Your task to perform on an android device: Open Chrome and go to the settings page Image 0: 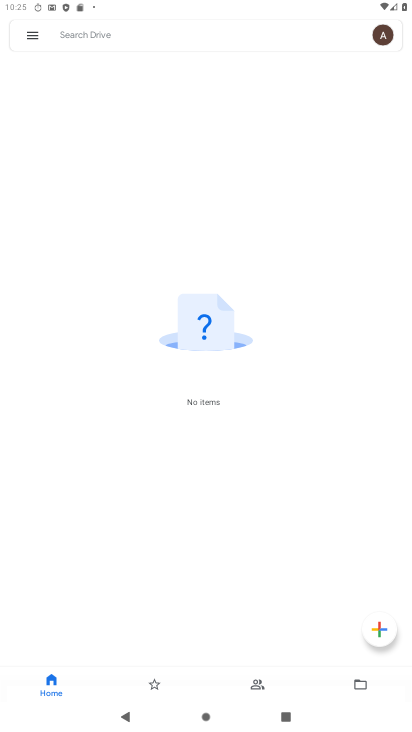
Step 0: press home button
Your task to perform on an android device: Open Chrome and go to the settings page Image 1: 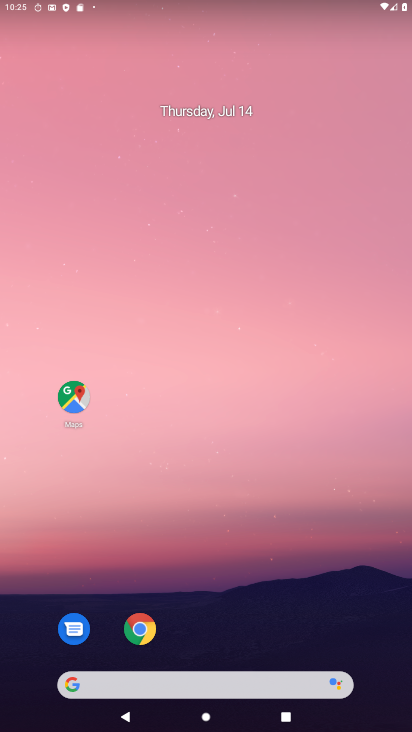
Step 1: click (135, 626)
Your task to perform on an android device: Open Chrome and go to the settings page Image 2: 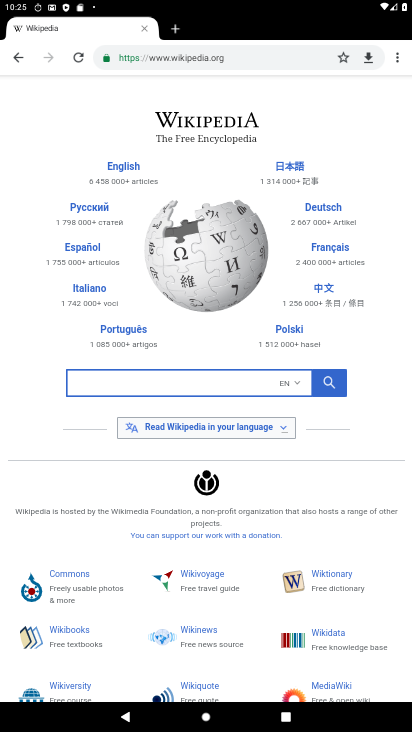
Step 2: click (396, 64)
Your task to perform on an android device: Open Chrome and go to the settings page Image 3: 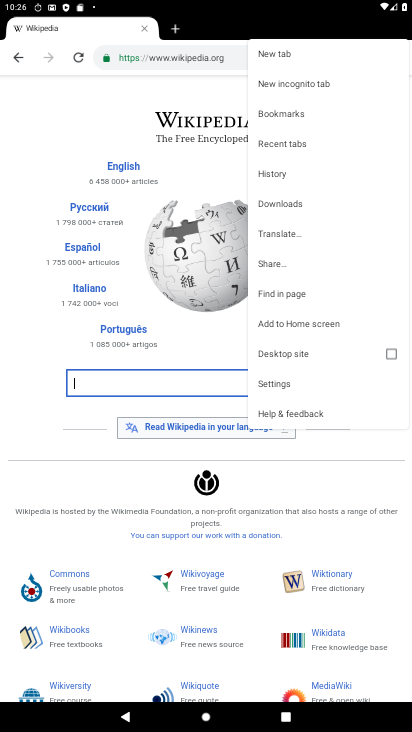
Step 3: click (306, 382)
Your task to perform on an android device: Open Chrome and go to the settings page Image 4: 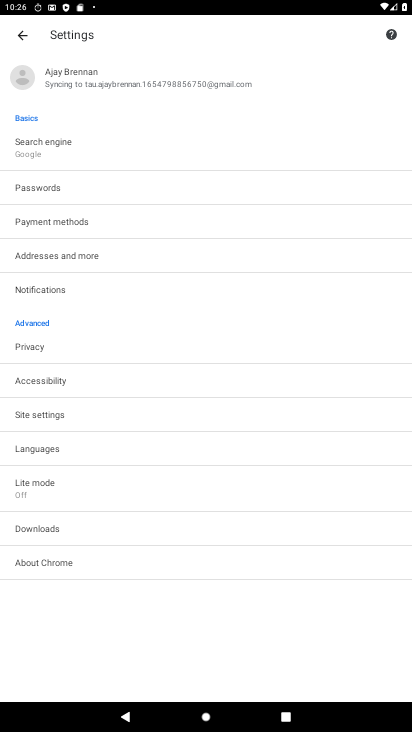
Step 4: task complete